Your task to perform on an android device: What's the price of the Sony TV? Image 0: 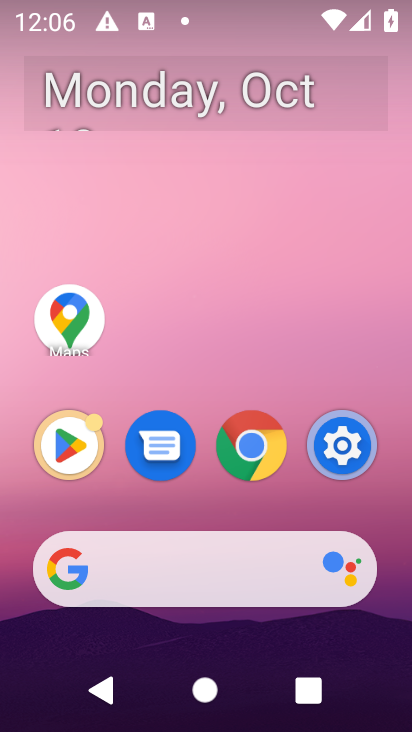
Step 0: click (63, 565)
Your task to perform on an android device: What's the price of the Sony TV? Image 1: 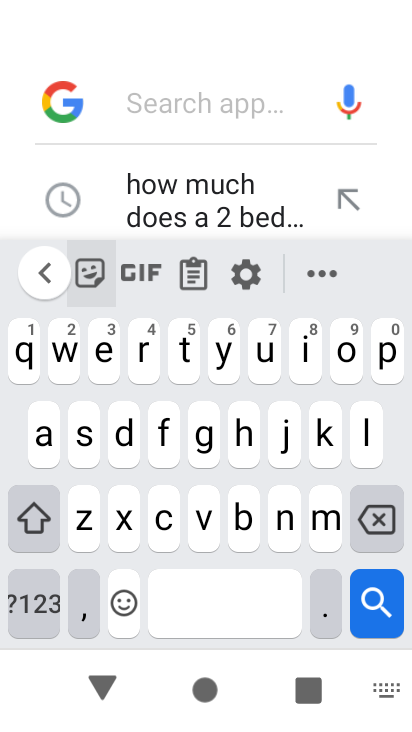
Step 1: type "whats the price of the sony tv"
Your task to perform on an android device: What's the price of the Sony TV? Image 2: 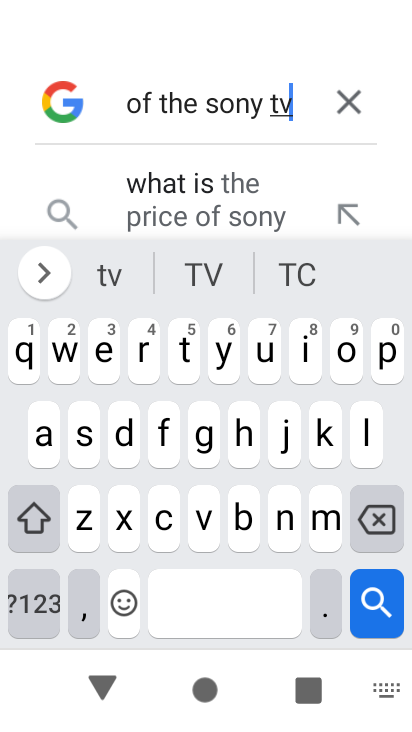
Step 2: click (156, 199)
Your task to perform on an android device: What's the price of the Sony TV? Image 3: 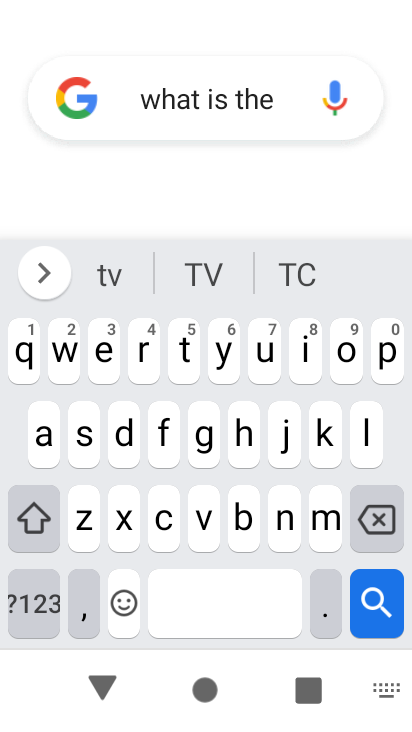
Step 3: task complete